Your task to perform on an android device: When is my next meeting? Image 0: 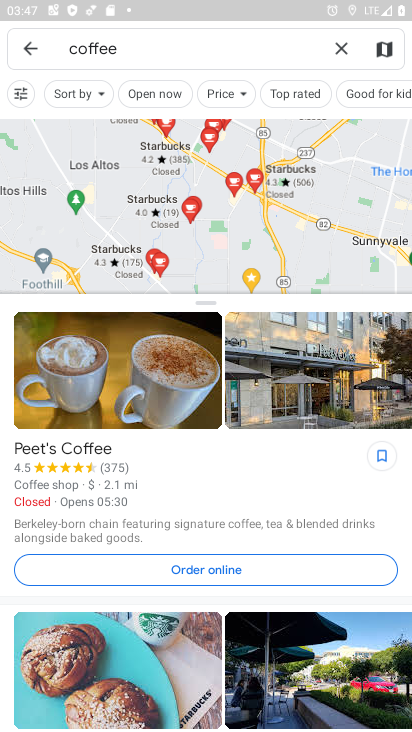
Step 0: press home button
Your task to perform on an android device: When is my next meeting? Image 1: 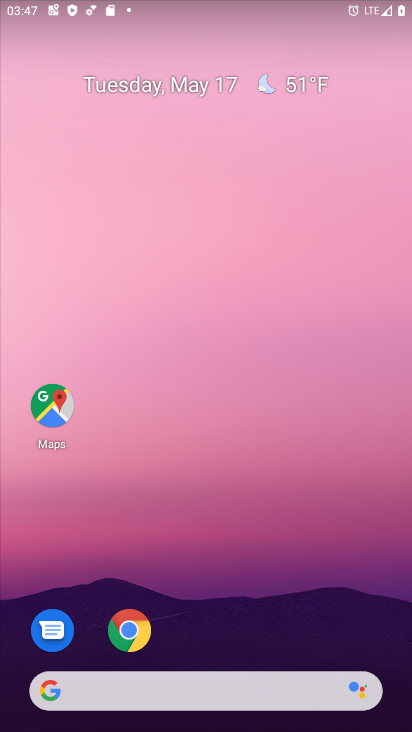
Step 1: drag from (206, 643) to (284, 30)
Your task to perform on an android device: When is my next meeting? Image 2: 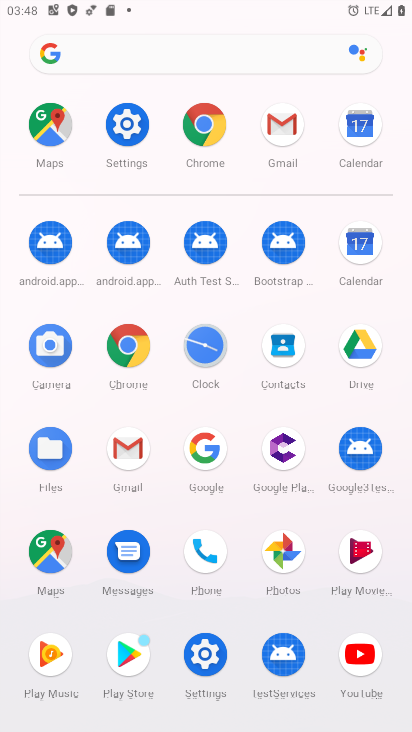
Step 2: click (365, 246)
Your task to perform on an android device: When is my next meeting? Image 3: 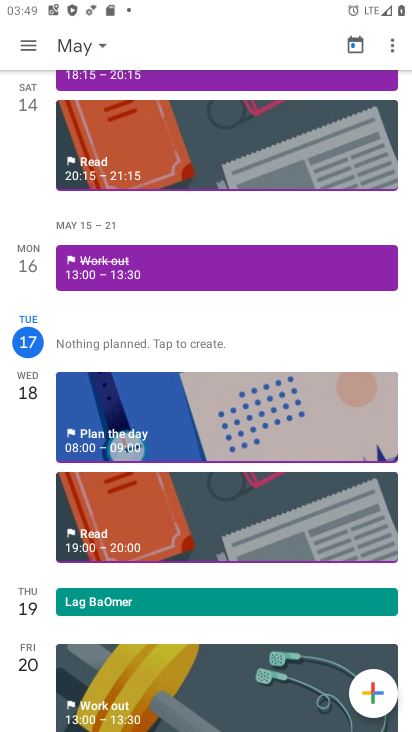
Step 3: task complete